Your task to perform on an android device: Open the stopwatch Image 0: 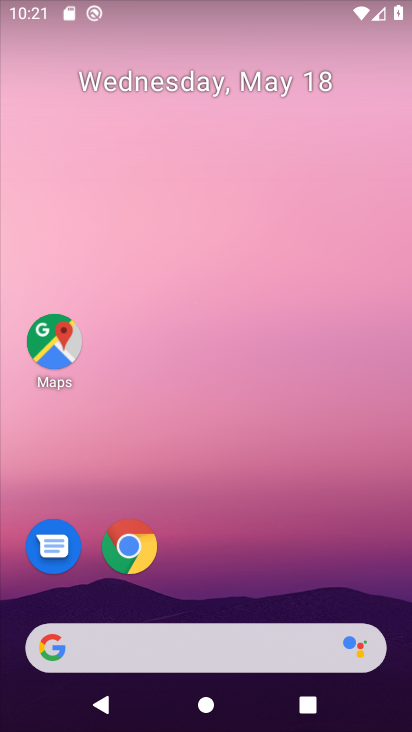
Step 0: drag from (196, 590) to (248, 1)
Your task to perform on an android device: Open the stopwatch Image 1: 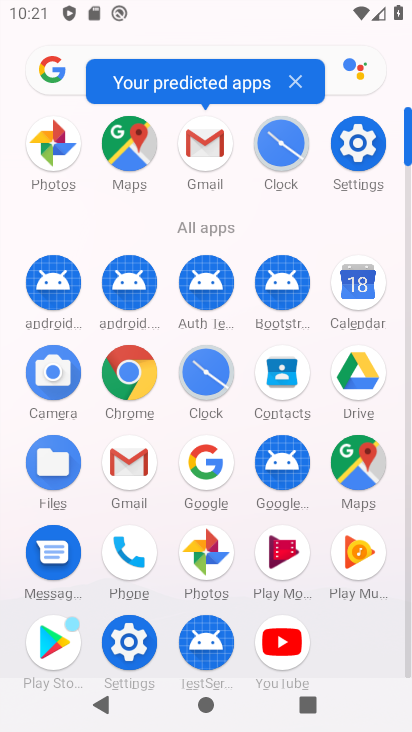
Step 1: click (275, 156)
Your task to perform on an android device: Open the stopwatch Image 2: 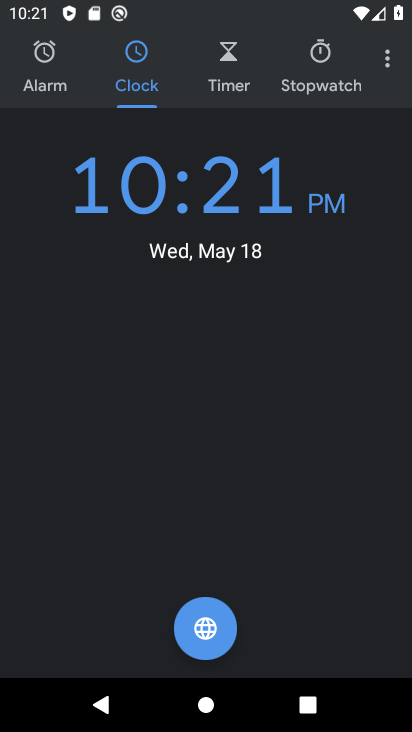
Step 2: click (306, 70)
Your task to perform on an android device: Open the stopwatch Image 3: 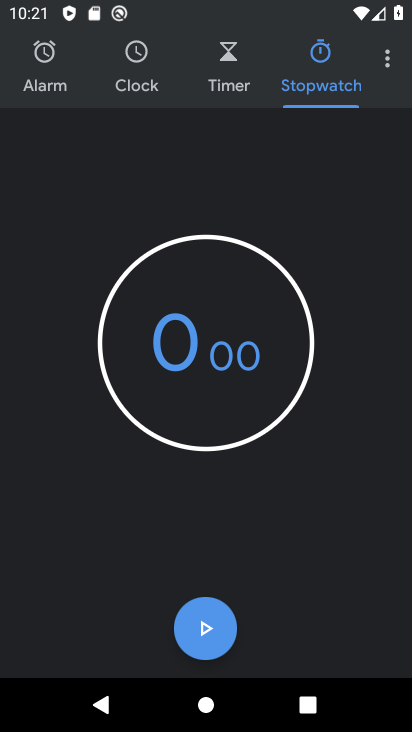
Step 3: task complete